Your task to perform on an android device: change alarm snooze length Image 0: 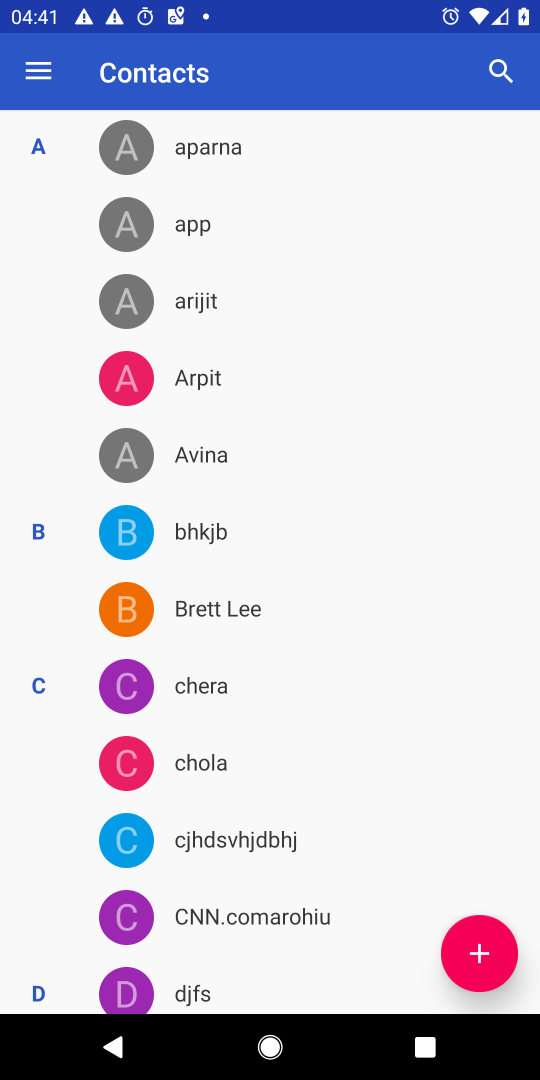
Step 0: press home button
Your task to perform on an android device: change alarm snooze length Image 1: 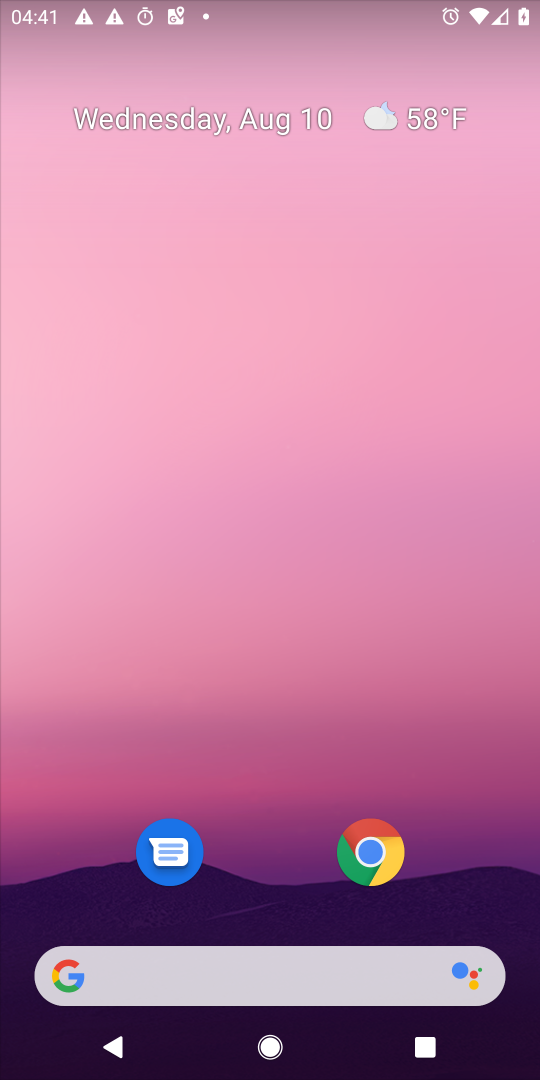
Step 1: drag from (243, 888) to (49, 246)
Your task to perform on an android device: change alarm snooze length Image 2: 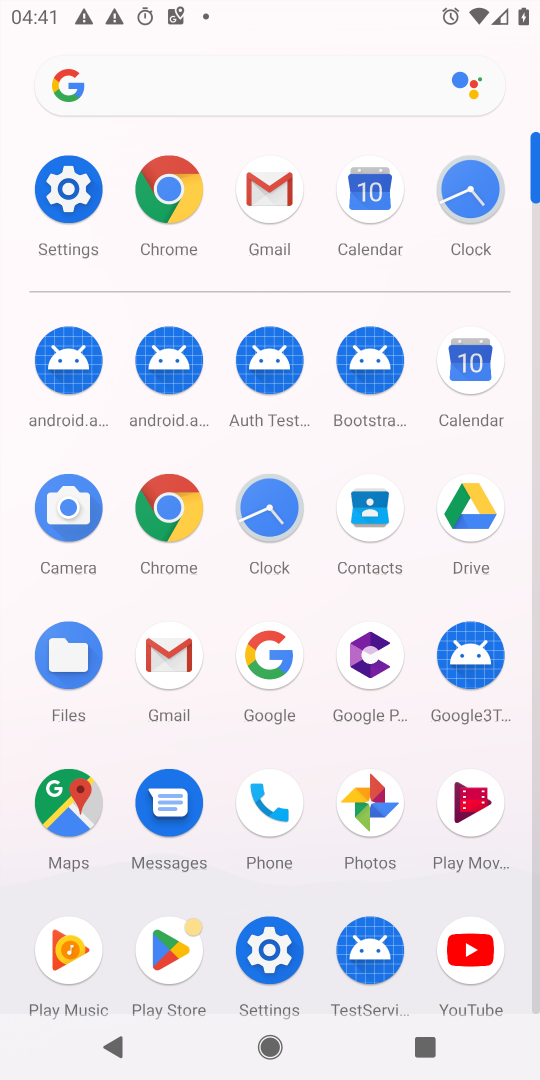
Step 2: click (279, 501)
Your task to perform on an android device: change alarm snooze length Image 3: 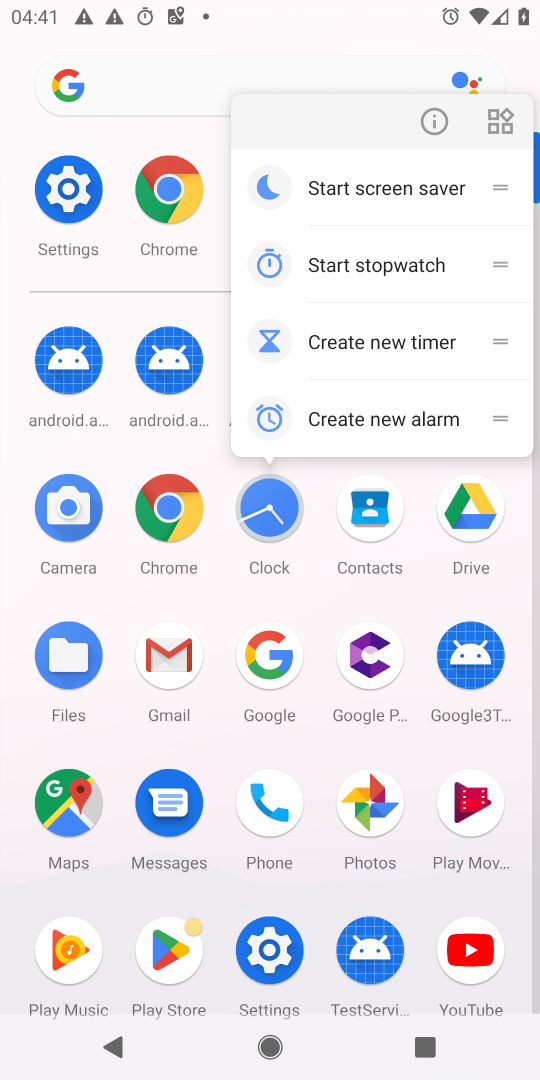
Step 3: click (267, 499)
Your task to perform on an android device: change alarm snooze length Image 4: 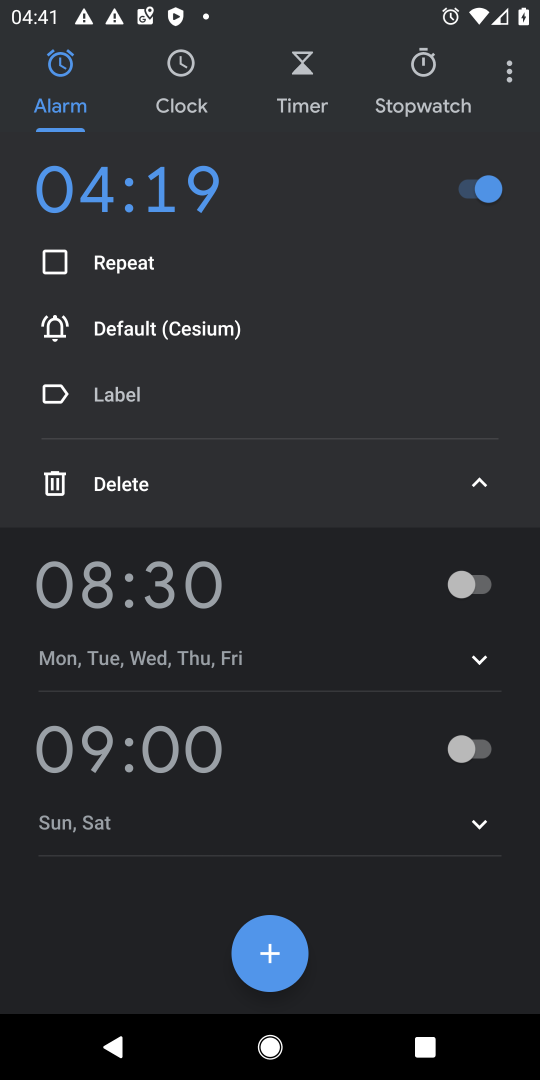
Step 4: click (490, 73)
Your task to perform on an android device: change alarm snooze length Image 5: 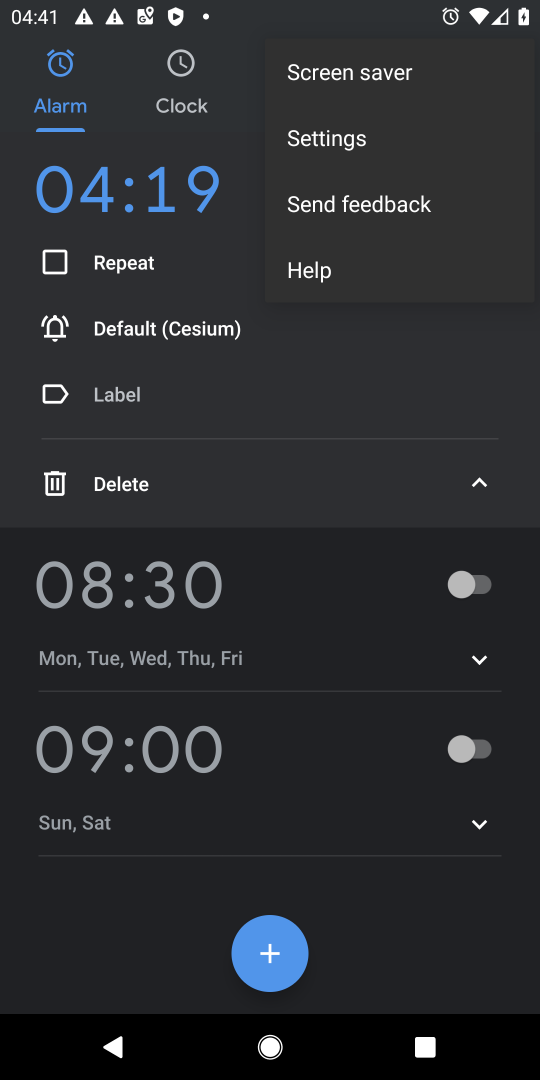
Step 5: click (380, 130)
Your task to perform on an android device: change alarm snooze length Image 6: 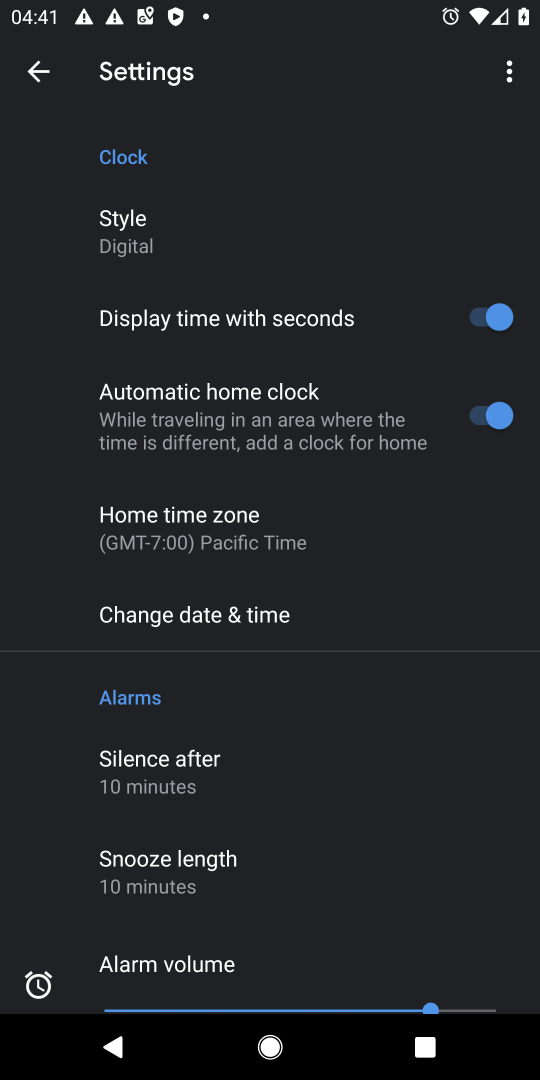
Step 6: click (129, 865)
Your task to perform on an android device: change alarm snooze length Image 7: 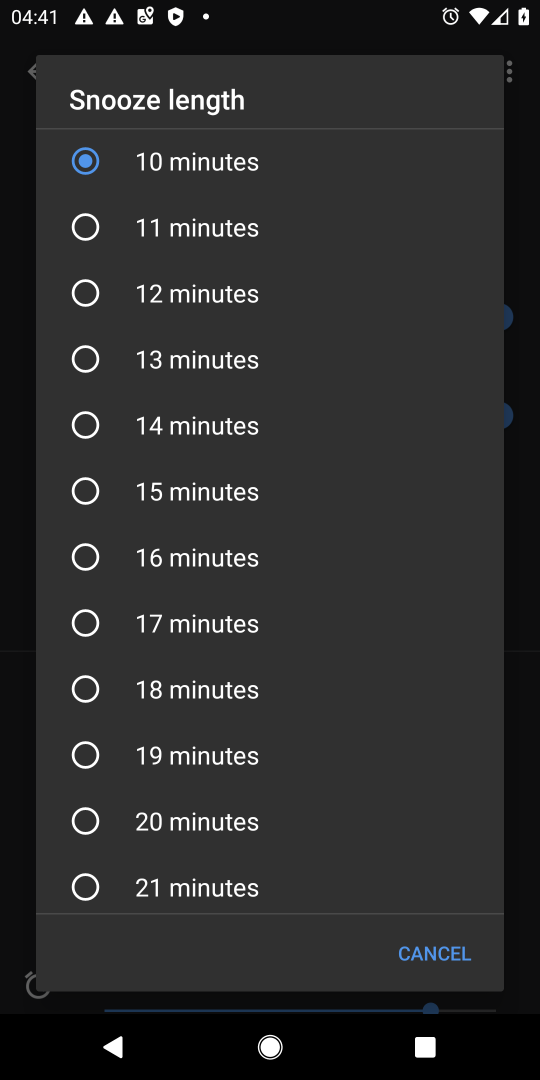
Step 7: click (188, 224)
Your task to perform on an android device: change alarm snooze length Image 8: 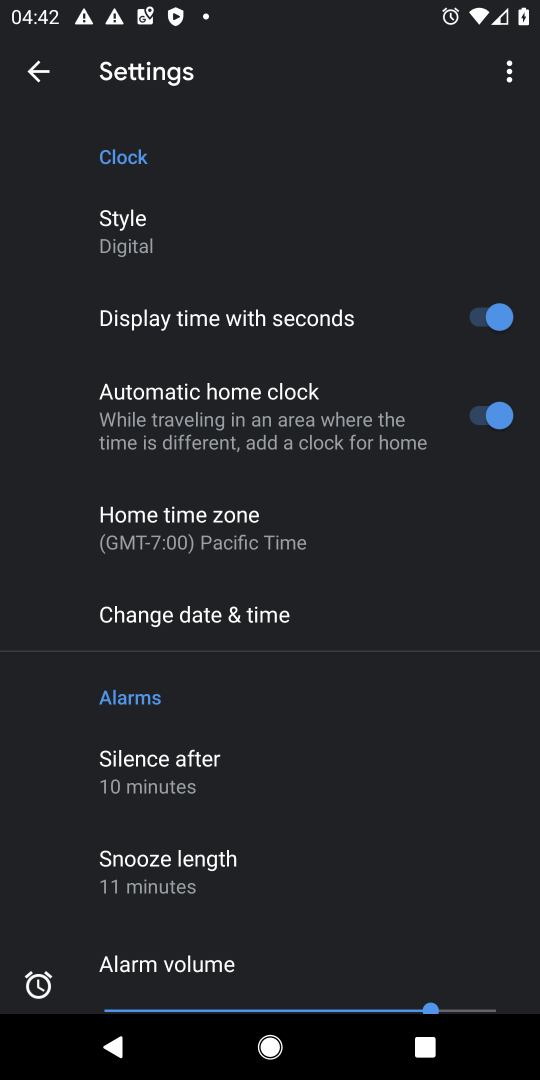
Step 8: task complete